Your task to perform on an android device: turn off notifications settings in the gmail app Image 0: 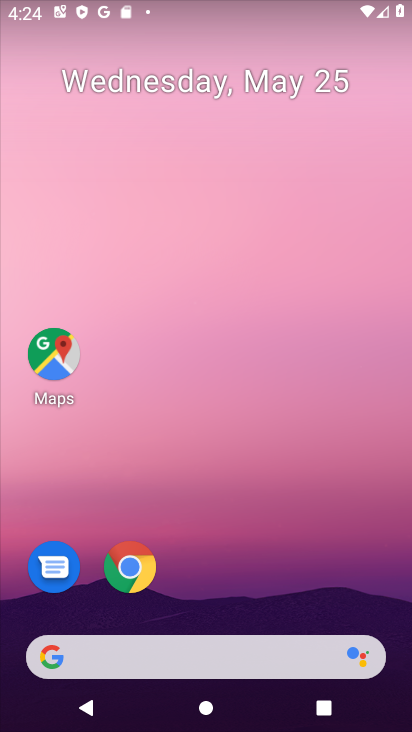
Step 0: drag from (284, 453) to (219, 35)
Your task to perform on an android device: turn off notifications settings in the gmail app Image 1: 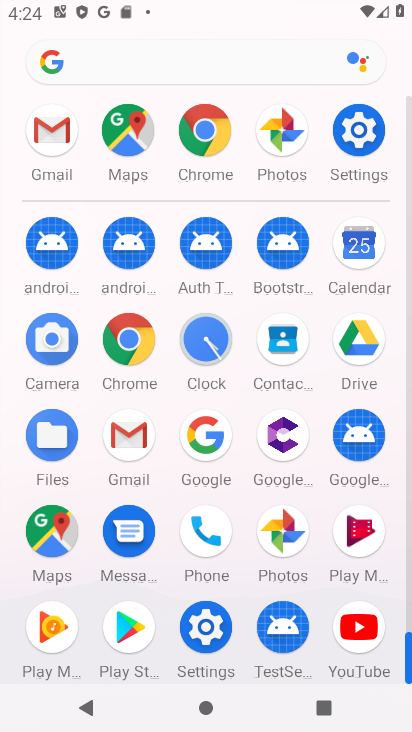
Step 1: drag from (6, 619) to (13, 258)
Your task to perform on an android device: turn off notifications settings in the gmail app Image 2: 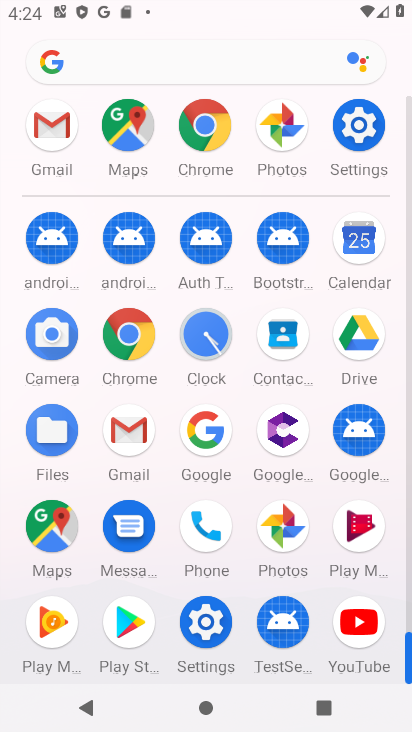
Step 2: click (129, 422)
Your task to perform on an android device: turn off notifications settings in the gmail app Image 3: 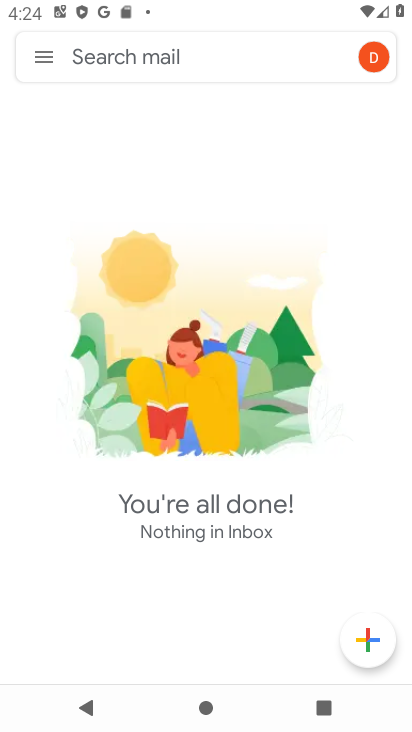
Step 3: click (32, 45)
Your task to perform on an android device: turn off notifications settings in the gmail app Image 4: 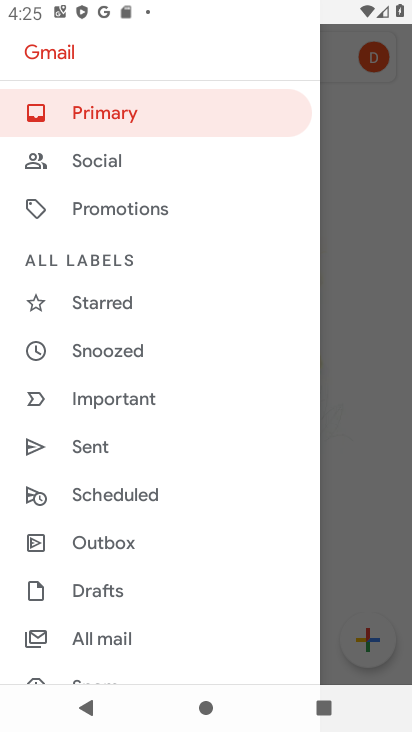
Step 4: drag from (175, 614) to (192, 213)
Your task to perform on an android device: turn off notifications settings in the gmail app Image 5: 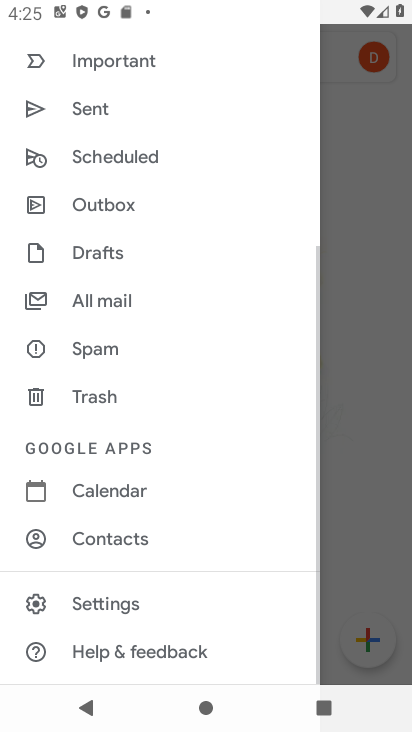
Step 5: click (110, 604)
Your task to perform on an android device: turn off notifications settings in the gmail app Image 6: 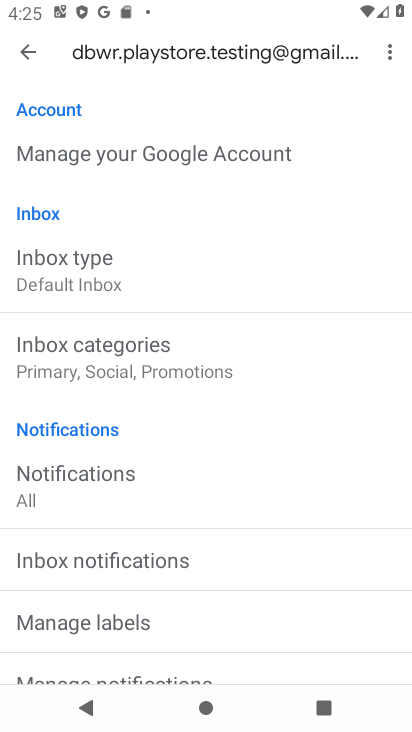
Step 6: drag from (248, 597) to (295, 199)
Your task to perform on an android device: turn off notifications settings in the gmail app Image 7: 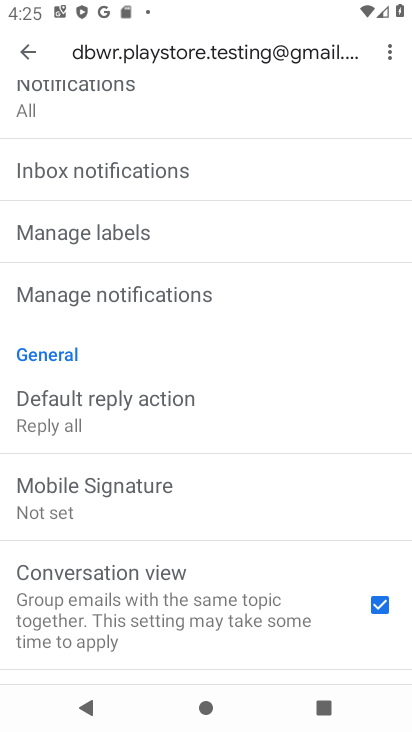
Step 7: click (143, 286)
Your task to perform on an android device: turn off notifications settings in the gmail app Image 8: 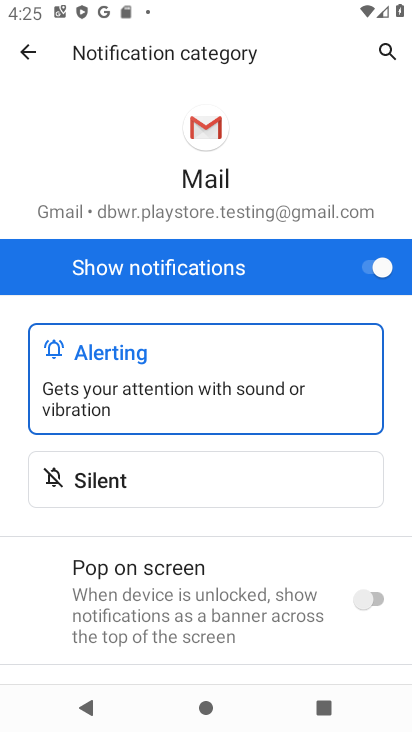
Step 8: click (369, 260)
Your task to perform on an android device: turn off notifications settings in the gmail app Image 9: 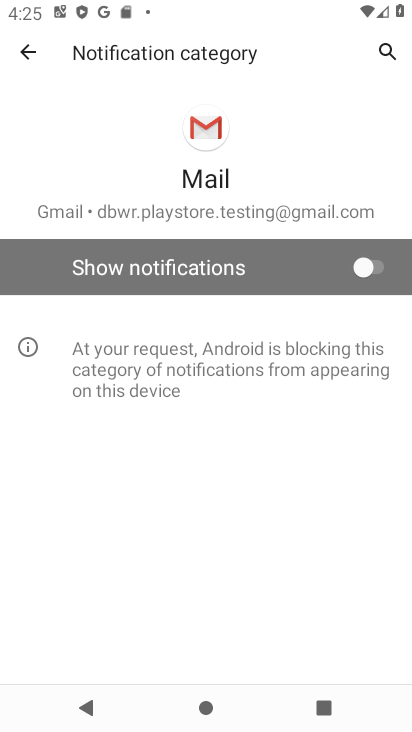
Step 9: task complete